Your task to perform on an android device: Check the news Image 0: 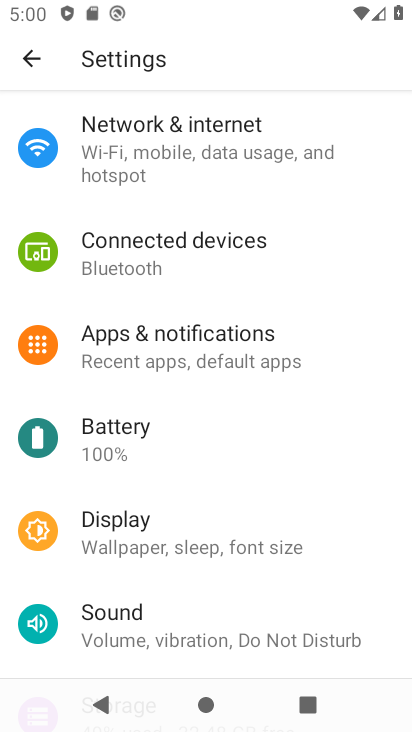
Step 0: press home button
Your task to perform on an android device: Check the news Image 1: 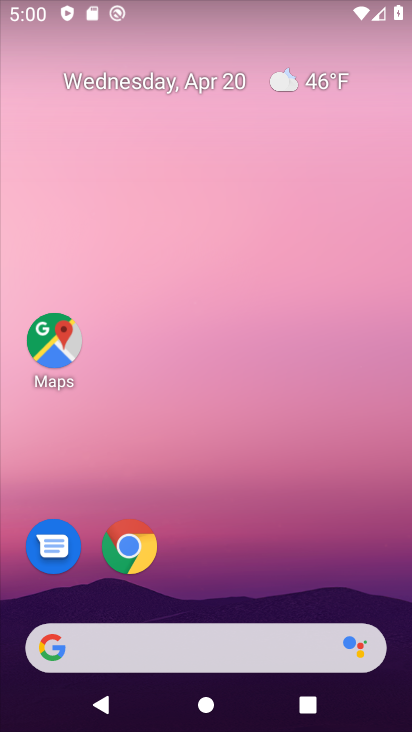
Step 1: drag from (279, 437) to (271, 10)
Your task to perform on an android device: Check the news Image 2: 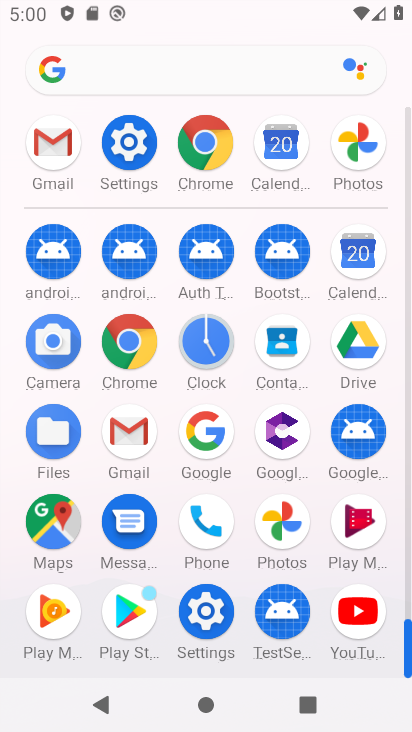
Step 2: click (229, 151)
Your task to perform on an android device: Check the news Image 3: 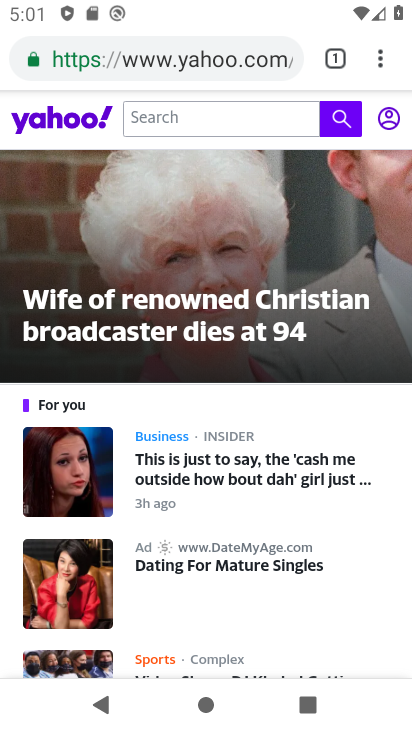
Step 3: task complete